Your task to perform on an android device: turn on airplane mode Image 0: 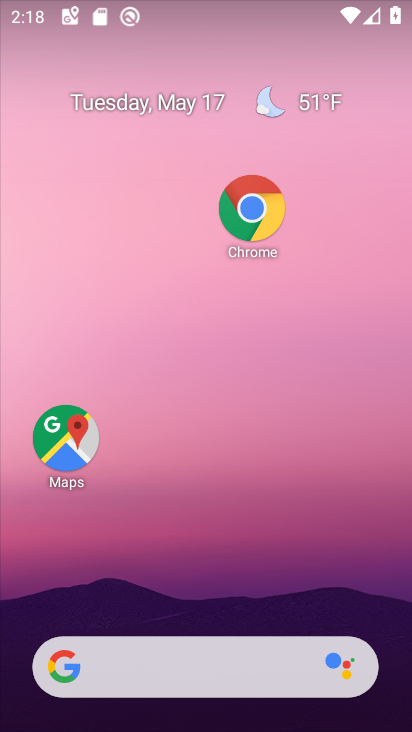
Step 0: drag from (196, 629) to (124, 23)
Your task to perform on an android device: turn on airplane mode Image 1: 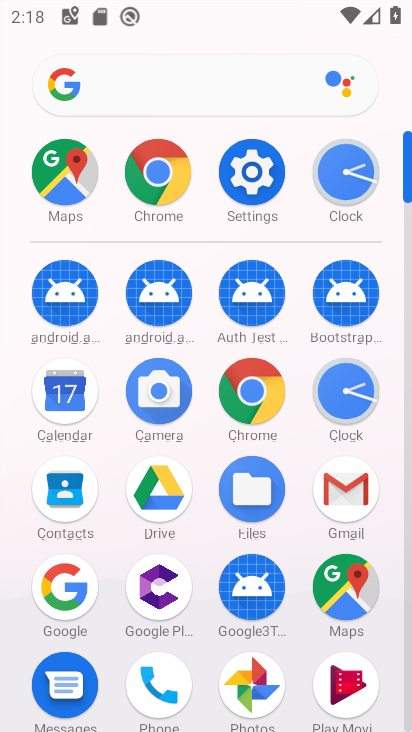
Step 1: click (239, 159)
Your task to perform on an android device: turn on airplane mode Image 2: 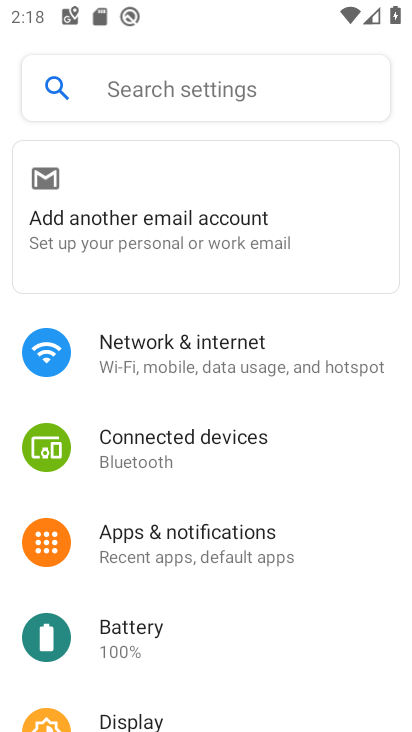
Step 2: click (209, 336)
Your task to perform on an android device: turn on airplane mode Image 3: 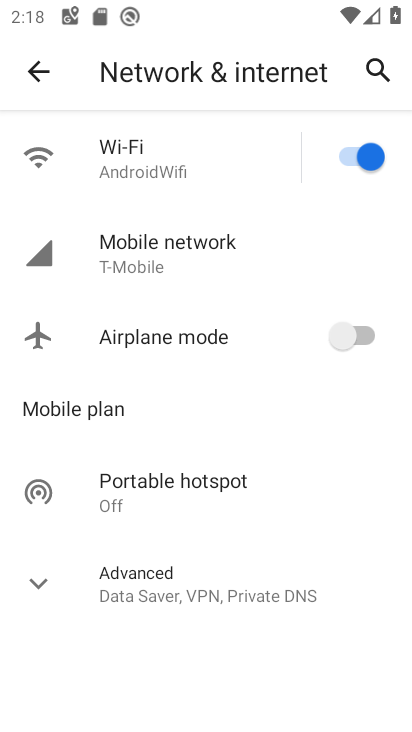
Step 3: click (354, 338)
Your task to perform on an android device: turn on airplane mode Image 4: 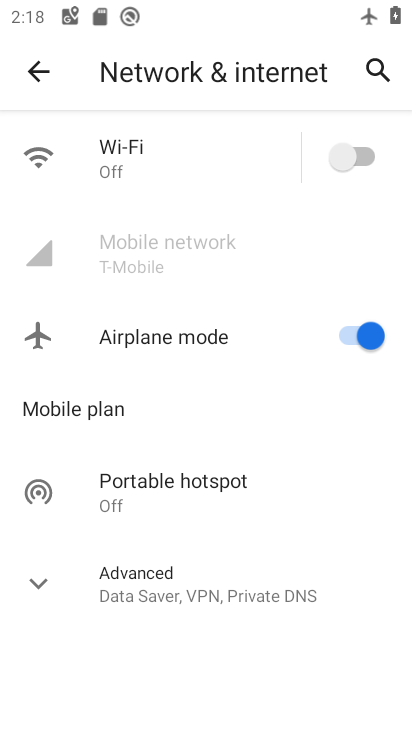
Step 4: task complete